Your task to perform on an android device: check data usage Image 0: 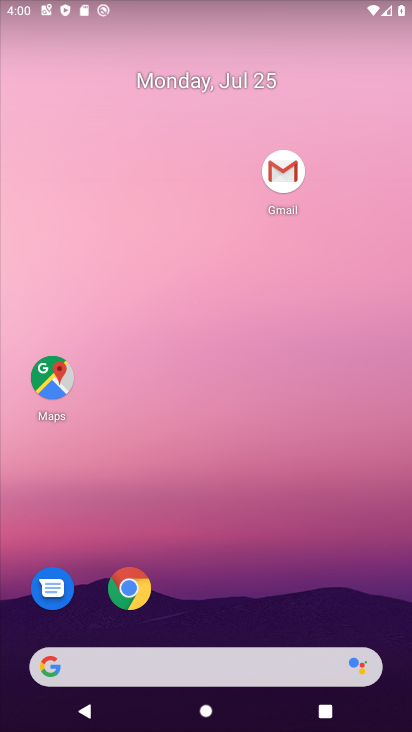
Step 0: drag from (327, 586) to (228, 0)
Your task to perform on an android device: check data usage Image 1: 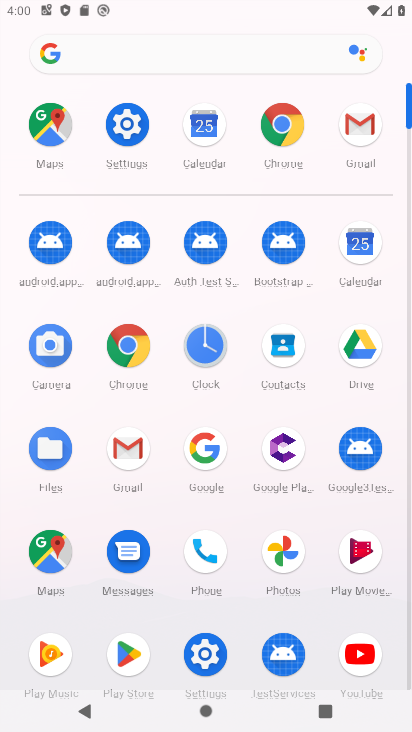
Step 1: click (136, 125)
Your task to perform on an android device: check data usage Image 2: 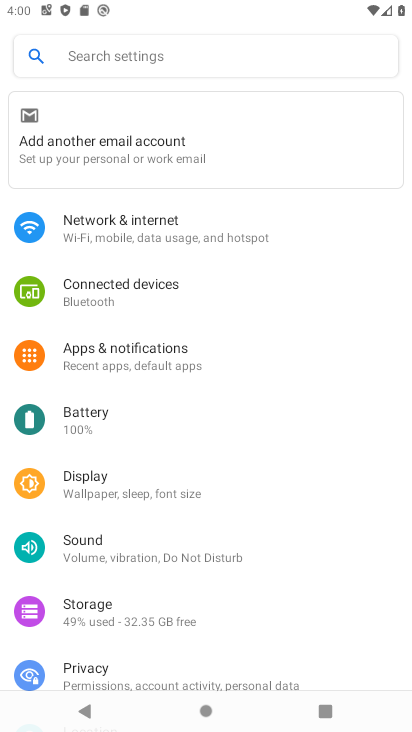
Step 2: click (131, 224)
Your task to perform on an android device: check data usage Image 3: 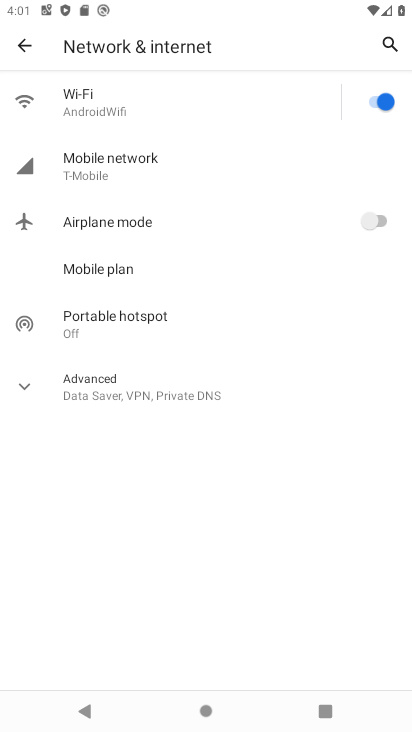
Step 3: click (92, 165)
Your task to perform on an android device: check data usage Image 4: 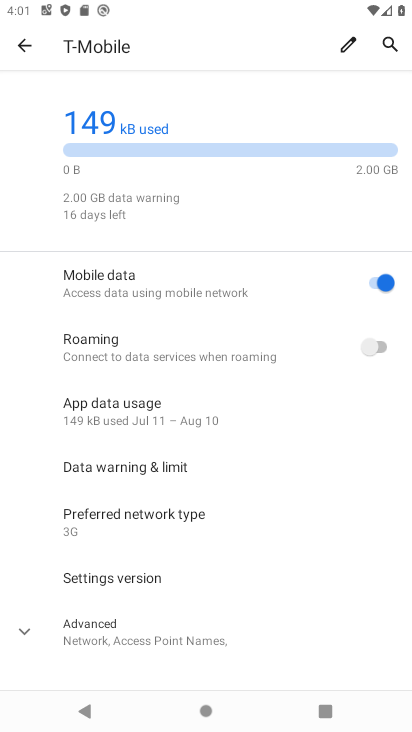
Step 4: task complete